Your task to perform on an android device: Is it going to rain this weekend? Image 0: 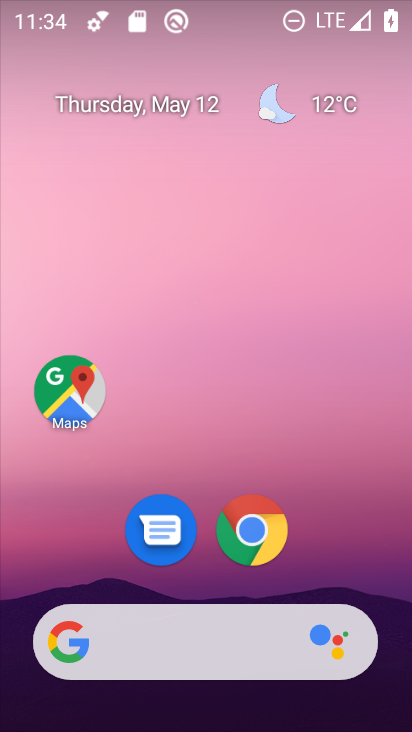
Step 0: click (333, 95)
Your task to perform on an android device: Is it going to rain this weekend? Image 1: 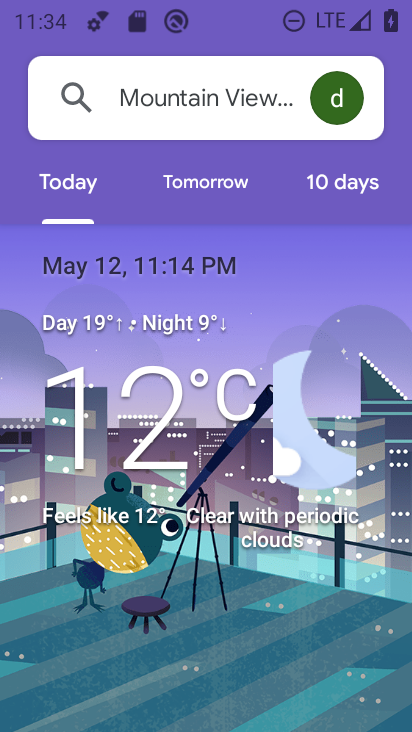
Step 1: click (331, 182)
Your task to perform on an android device: Is it going to rain this weekend? Image 2: 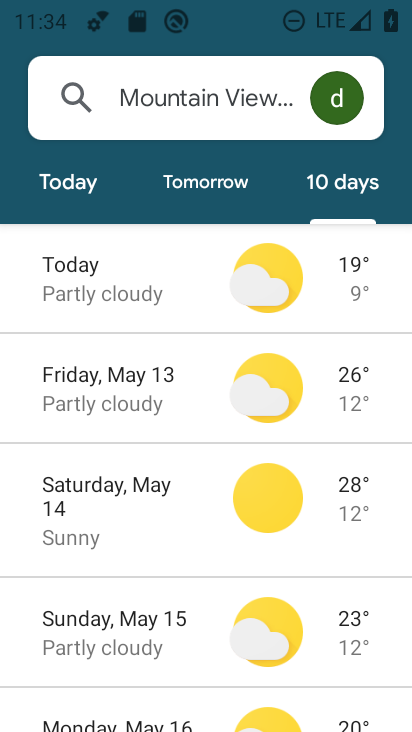
Step 2: click (119, 494)
Your task to perform on an android device: Is it going to rain this weekend? Image 3: 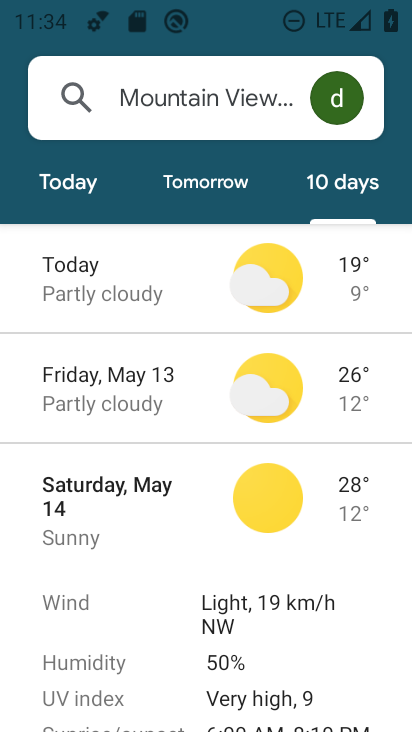
Step 3: task complete